Your task to perform on an android device: Do I have any events this weekend? Image 0: 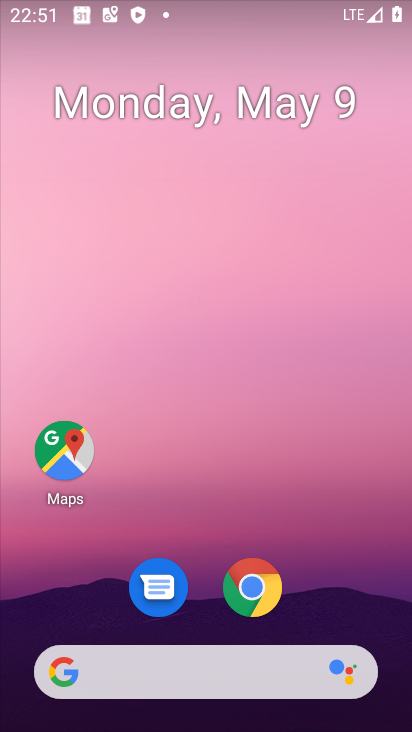
Step 0: click (407, 168)
Your task to perform on an android device: Do I have any events this weekend? Image 1: 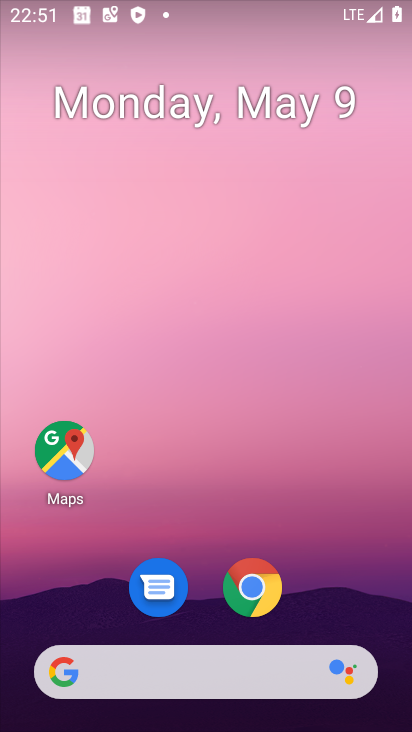
Step 1: click (220, 123)
Your task to perform on an android device: Do I have any events this weekend? Image 2: 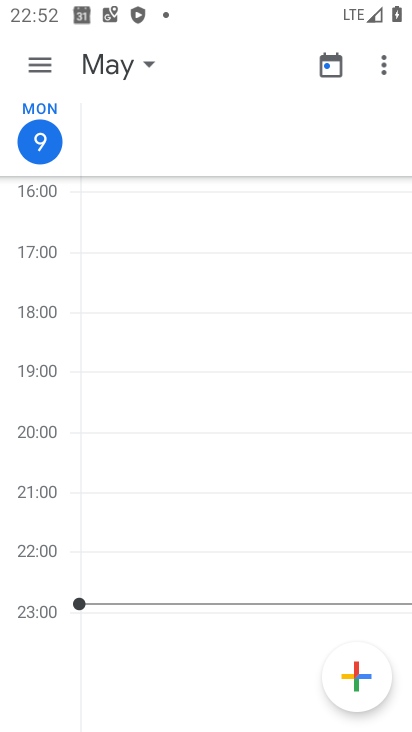
Step 2: click (110, 56)
Your task to perform on an android device: Do I have any events this weekend? Image 3: 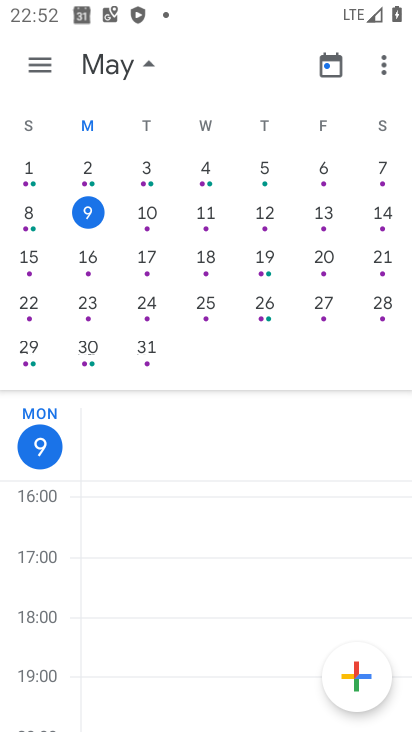
Step 3: click (382, 219)
Your task to perform on an android device: Do I have any events this weekend? Image 4: 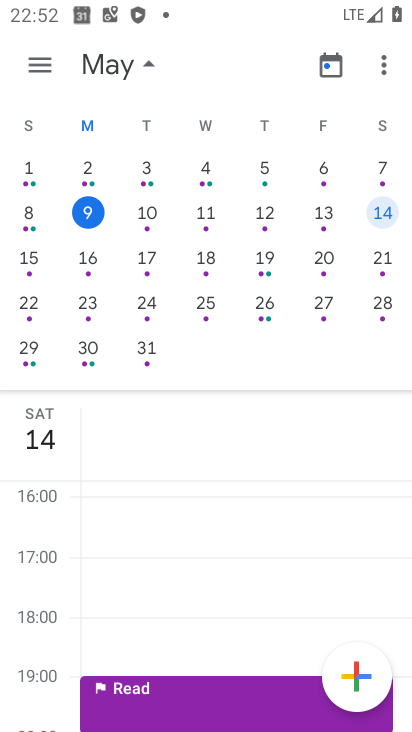
Step 4: click (161, 702)
Your task to perform on an android device: Do I have any events this weekend? Image 5: 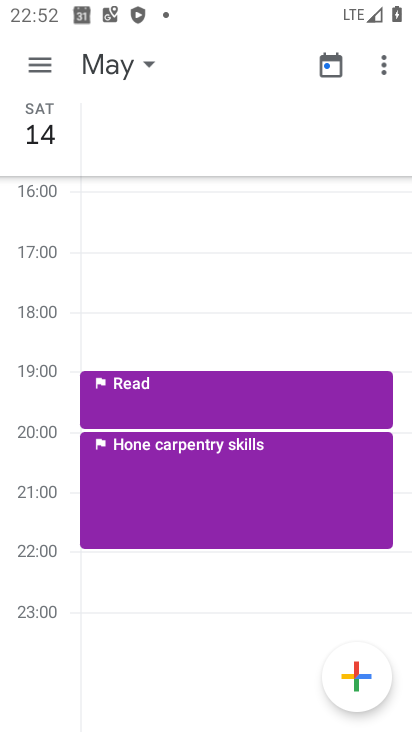
Step 5: task complete